Your task to perform on an android device: turn off picture-in-picture Image 0: 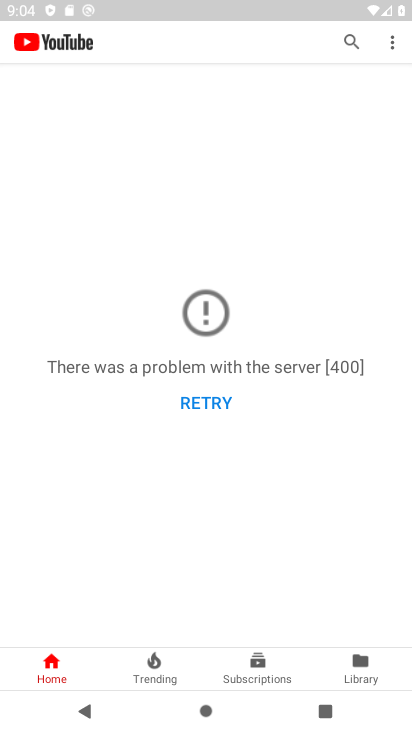
Step 0: press home button
Your task to perform on an android device: turn off picture-in-picture Image 1: 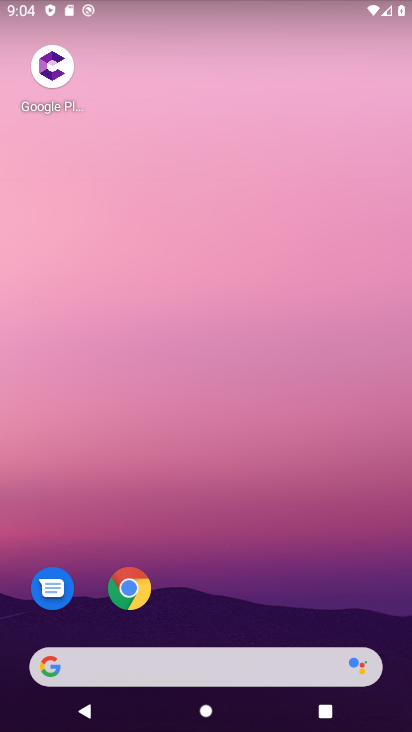
Step 1: click (129, 588)
Your task to perform on an android device: turn off picture-in-picture Image 2: 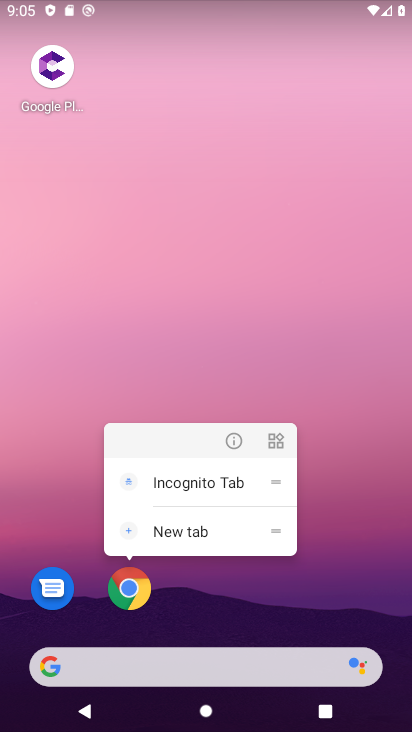
Step 2: click (237, 440)
Your task to perform on an android device: turn off picture-in-picture Image 3: 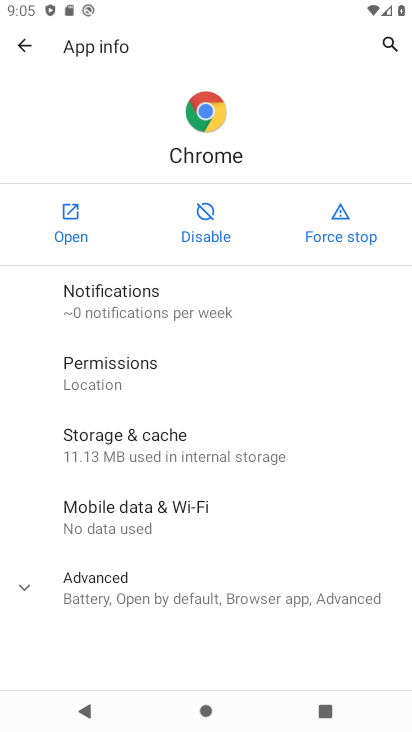
Step 3: click (161, 592)
Your task to perform on an android device: turn off picture-in-picture Image 4: 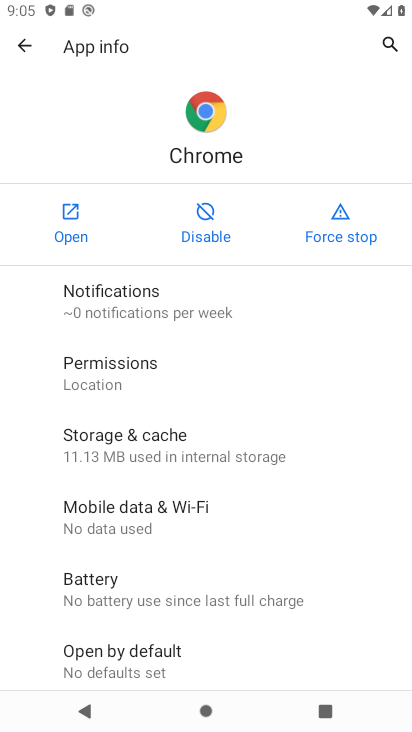
Step 4: drag from (172, 617) to (247, 508)
Your task to perform on an android device: turn off picture-in-picture Image 5: 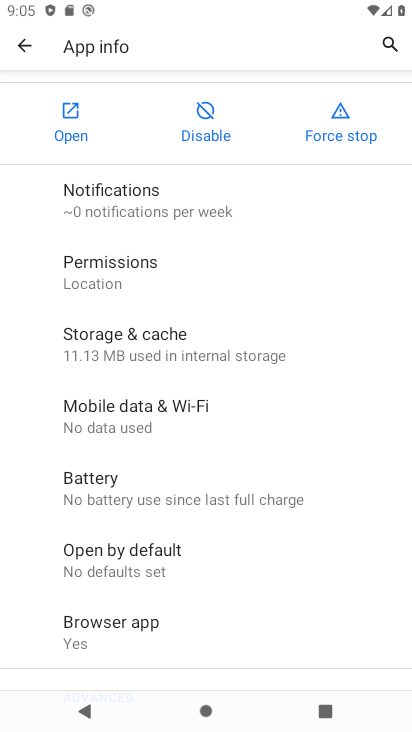
Step 5: drag from (186, 606) to (283, 489)
Your task to perform on an android device: turn off picture-in-picture Image 6: 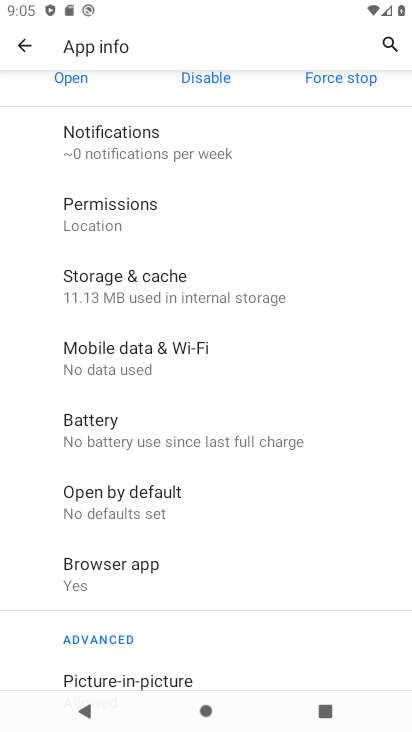
Step 6: drag from (181, 637) to (272, 539)
Your task to perform on an android device: turn off picture-in-picture Image 7: 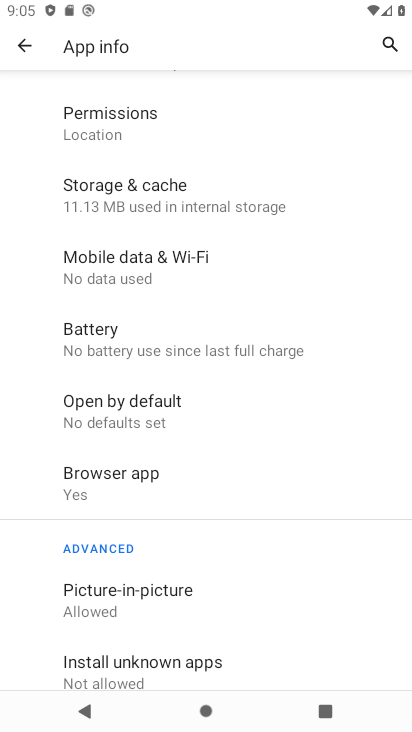
Step 7: click (191, 595)
Your task to perform on an android device: turn off picture-in-picture Image 8: 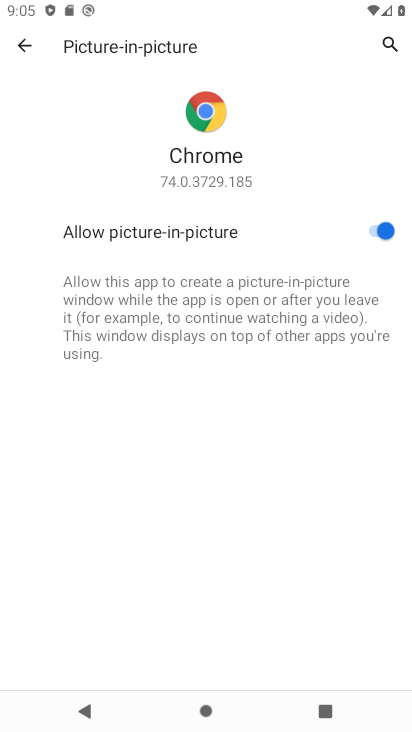
Step 8: click (373, 227)
Your task to perform on an android device: turn off picture-in-picture Image 9: 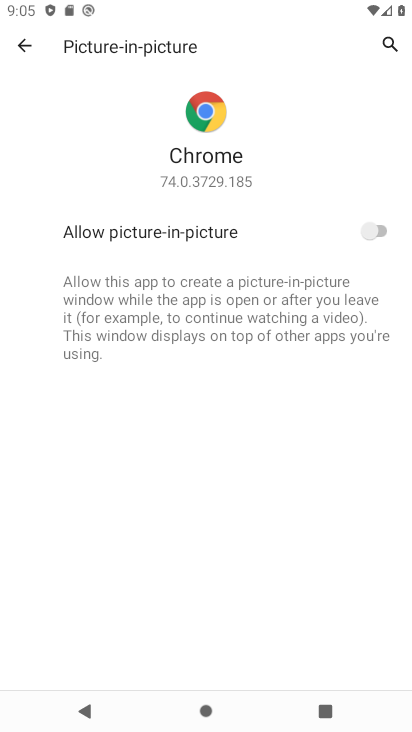
Step 9: task complete